Your task to perform on an android device: set the stopwatch Image 0: 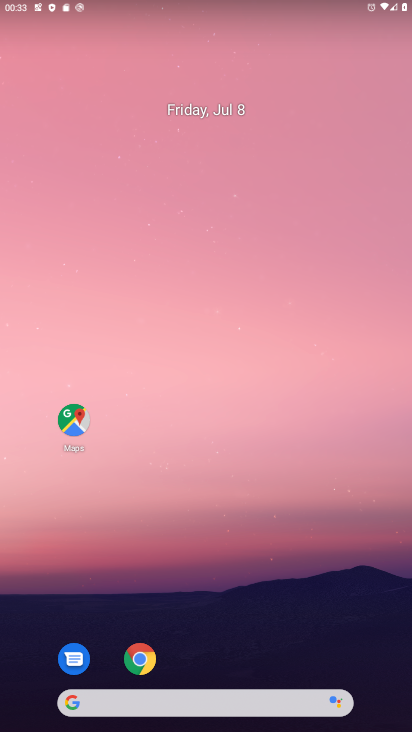
Step 0: drag from (195, 633) to (232, 105)
Your task to perform on an android device: set the stopwatch Image 1: 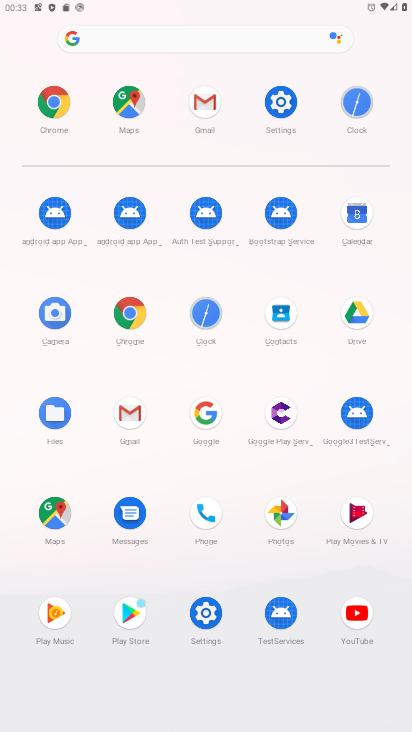
Step 1: click (211, 320)
Your task to perform on an android device: set the stopwatch Image 2: 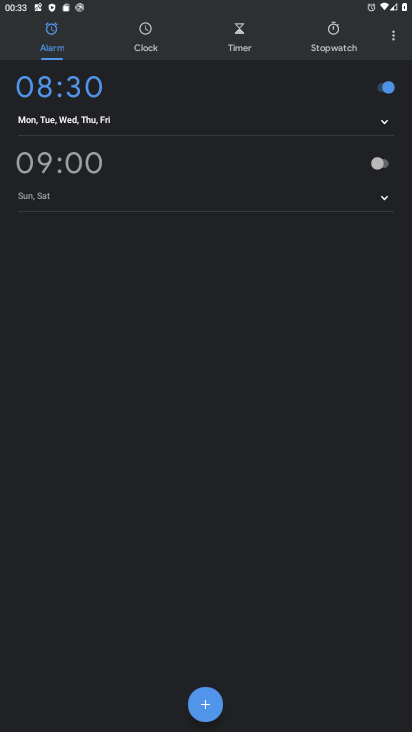
Step 2: click (342, 36)
Your task to perform on an android device: set the stopwatch Image 3: 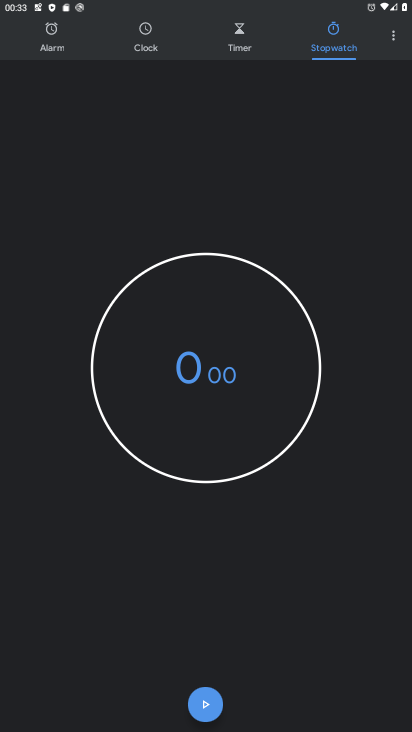
Step 3: click (207, 714)
Your task to perform on an android device: set the stopwatch Image 4: 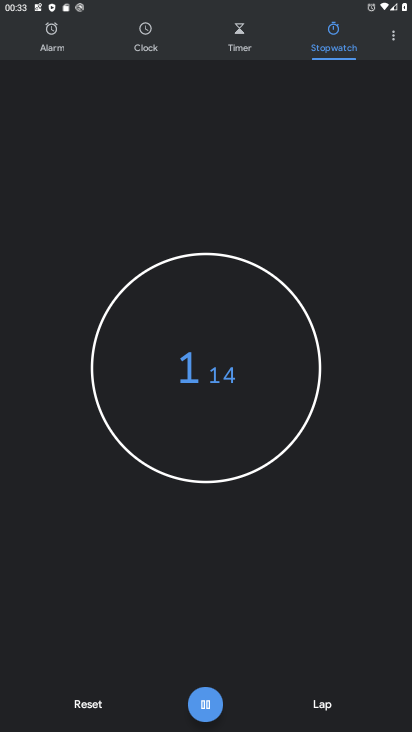
Step 4: task complete